Your task to perform on an android device: Search for sushi restaurants on Maps Image 0: 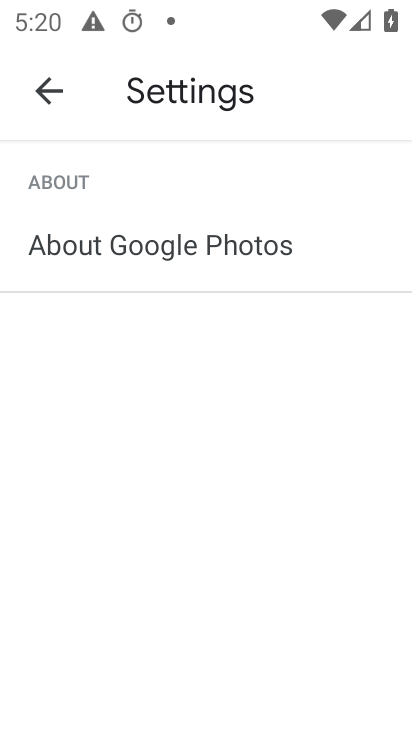
Step 0: press home button
Your task to perform on an android device: Search for sushi restaurants on Maps Image 1: 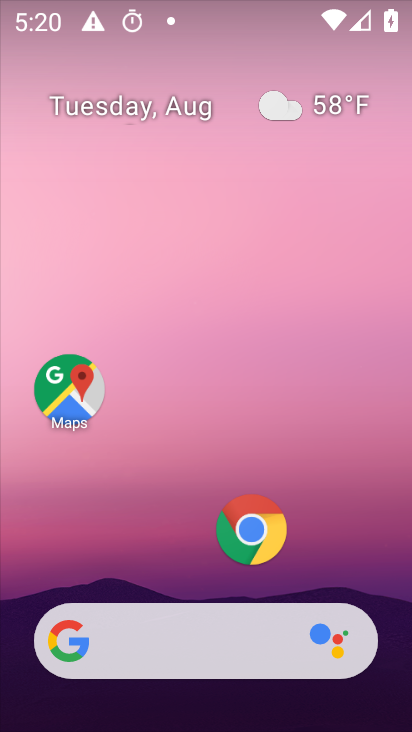
Step 1: click (82, 398)
Your task to perform on an android device: Search for sushi restaurants on Maps Image 2: 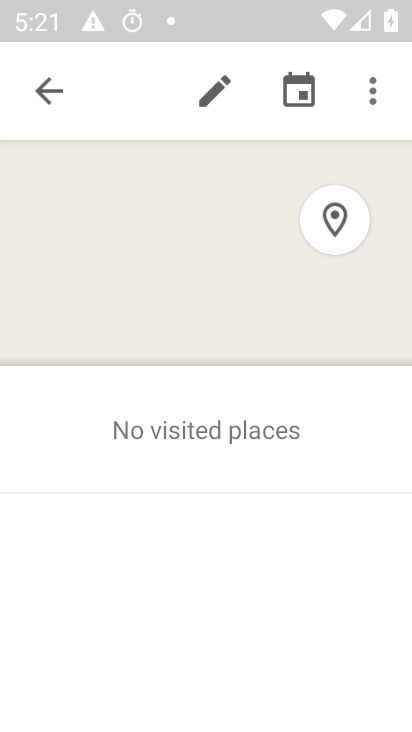
Step 2: click (36, 88)
Your task to perform on an android device: Search for sushi restaurants on Maps Image 3: 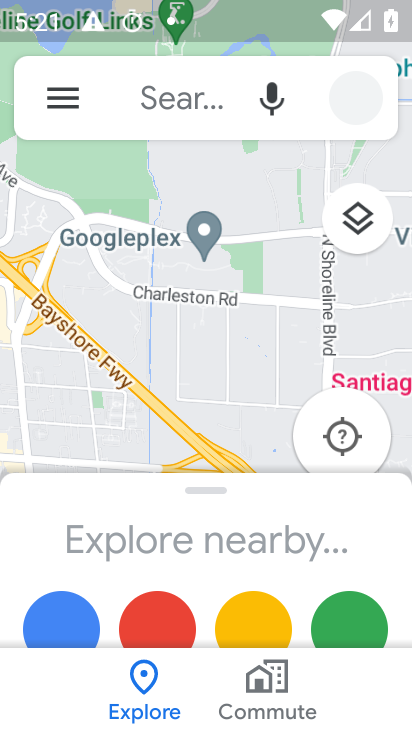
Step 3: click (169, 71)
Your task to perform on an android device: Search for sushi restaurants on Maps Image 4: 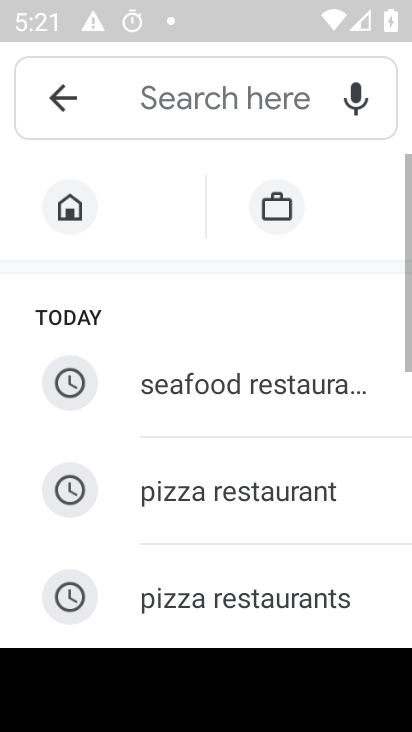
Step 4: type "sushi restaurant"
Your task to perform on an android device: Search for sushi restaurants on Maps Image 5: 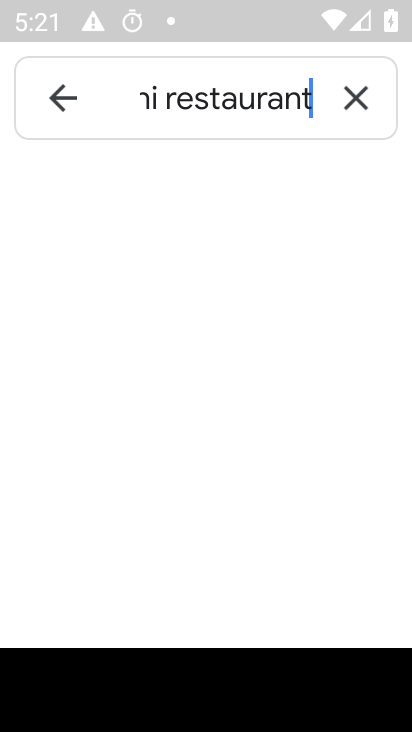
Step 5: type ""
Your task to perform on an android device: Search for sushi restaurants on Maps Image 6: 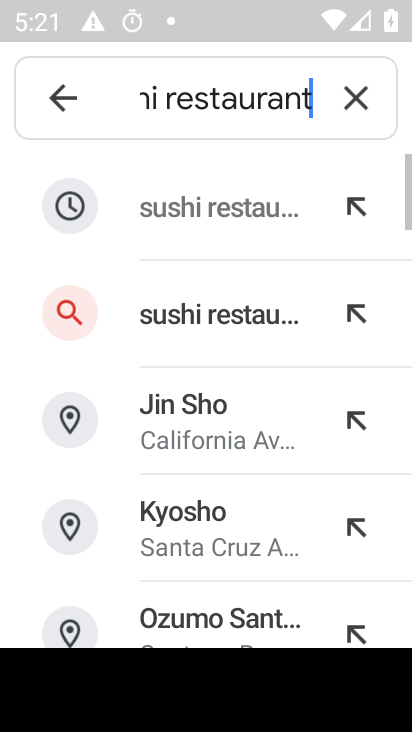
Step 6: click (240, 320)
Your task to perform on an android device: Search for sushi restaurants on Maps Image 7: 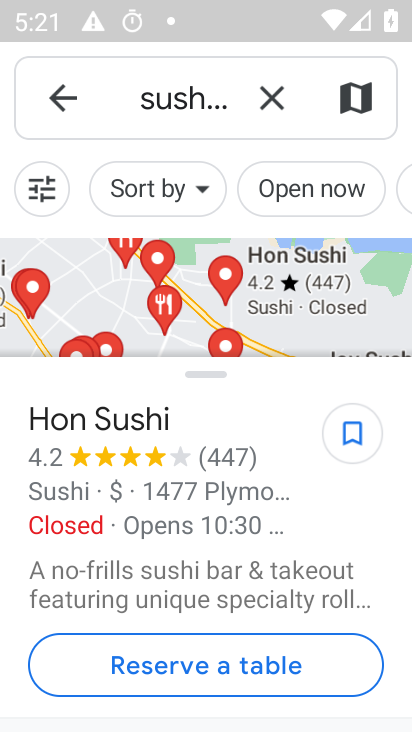
Step 7: task complete